Your task to perform on an android device: remove spam from my inbox in the gmail app Image 0: 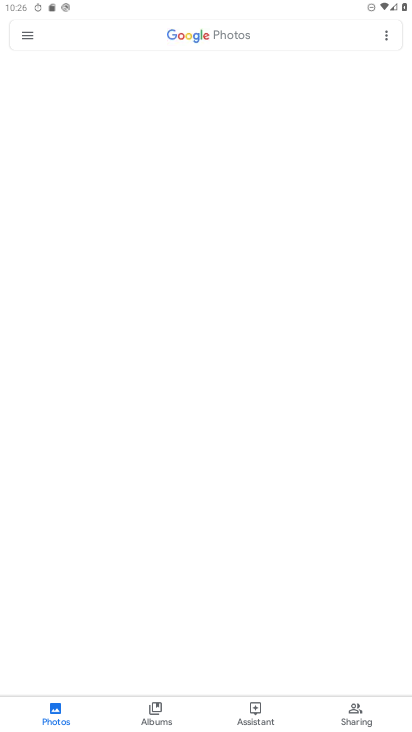
Step 0: drag from (296, 634) to (278, 390)
Your task to perform on an android device: remove spam from my inbox in the gmail app Image 1: 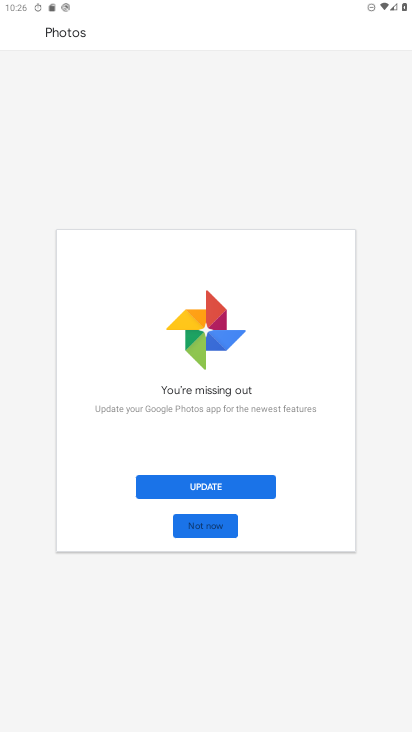
Step 1: press home button
Your task to perform on an android device: remove spam from my inbox in the gmail app Image 2: 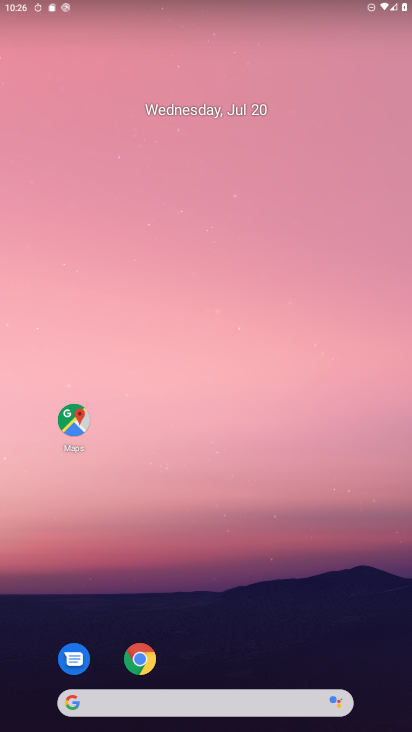
Step 2: drag from (334, 614) to (261, 102)
Your task to perform on an android device: remove spam from my inbox in the gmail app Image 3: 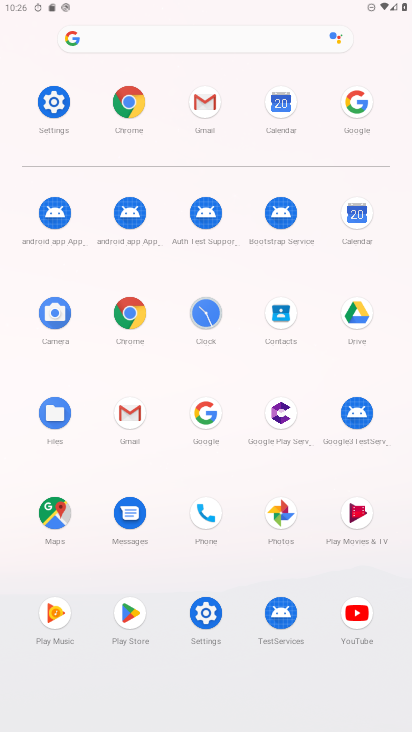
Step 3: click (205, 106)
Your task to perform on an android device: remove spam from my inbox in the gmail app Image 4: 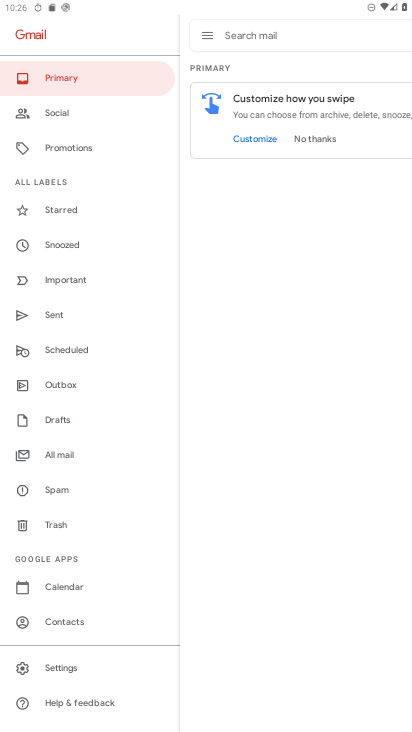
Step 4: click (56, 481)
Your task to perform on an android device: remove spam from my inbox in the gmail app Image 5: 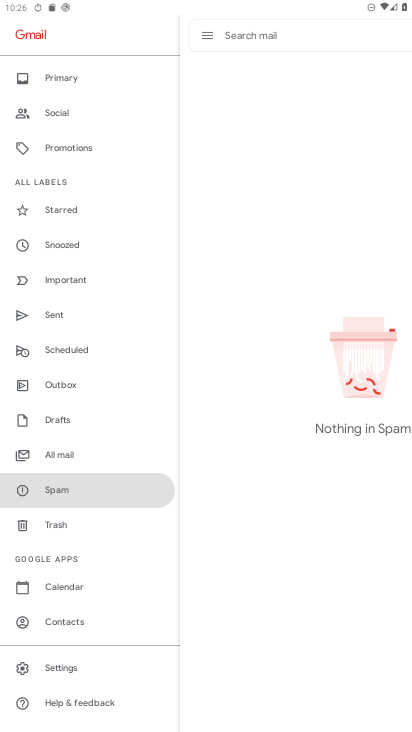
Step 5: task complete